Your task to perform on an android device: turn pop-ups off in chrome Image 0: 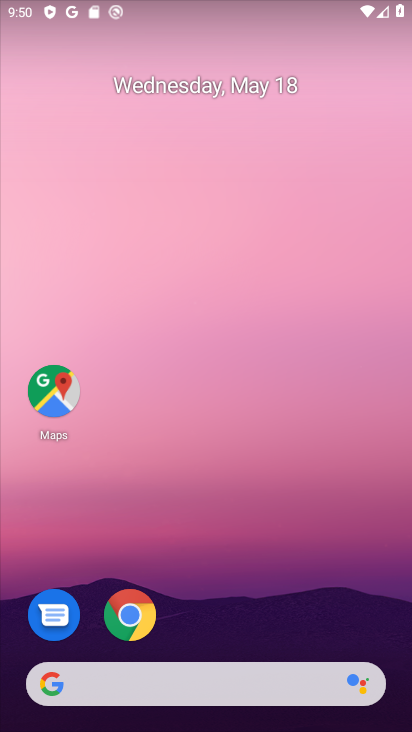
Step 0: click (141, 608)
Your task to perform on an android device: turn pop-ups off in chrome Image 1: 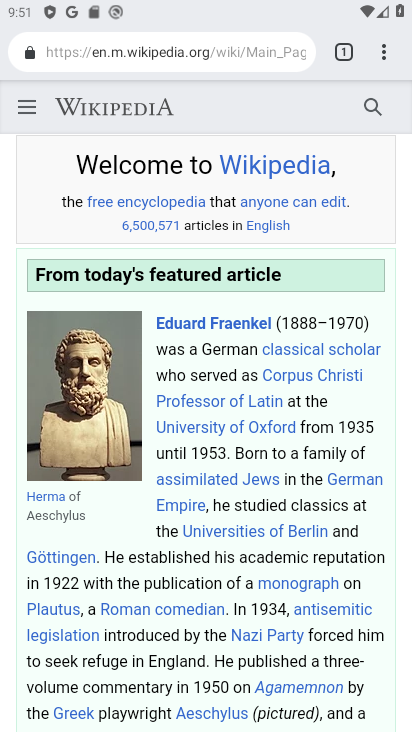
Step 1: click (382, 54)
Your task to perform on an android device: turn pop-ups off in chrome Image 2: 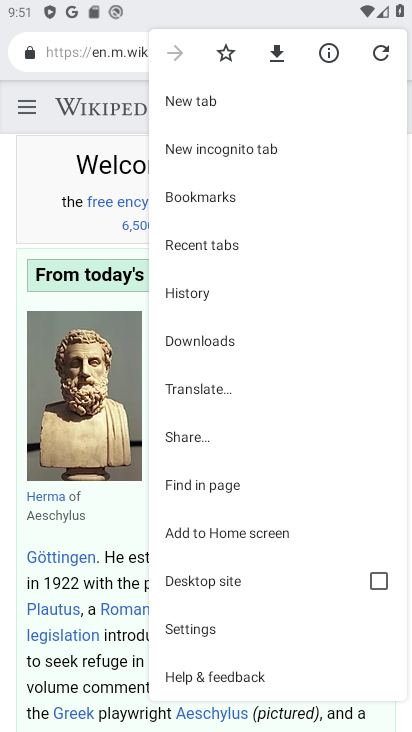
Step 2: click (236, 619)
Your task to perform on an android device: turn pop-ups off in chrome Image 3: 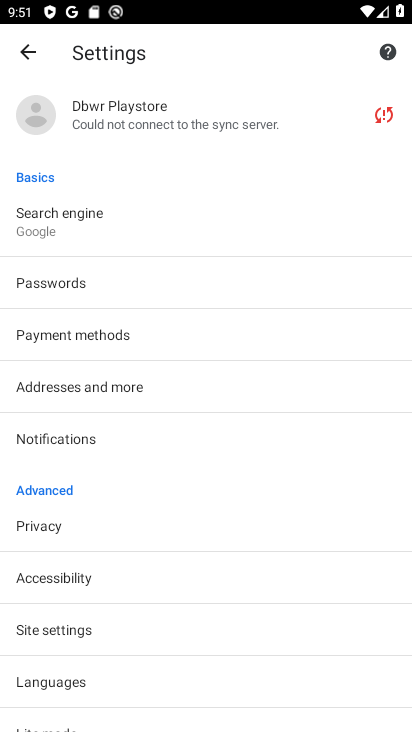
Step 3: click (86, 629)
Your task to perform on an android device: turn pop-ups off in chrome Image 4: 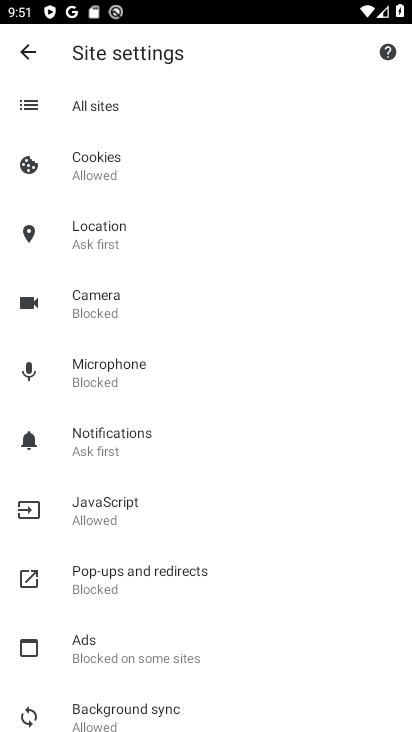
Step 4: click (138, 579)
Your task to perform on an android device: turn pop-ups off in chrome Image 5: 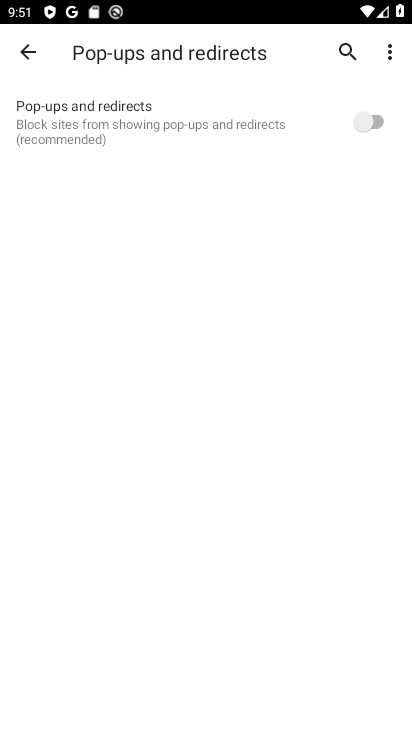
Step 5: task complete